Your task to perform on an android device: search for starred emails in the gmail app Image 0: 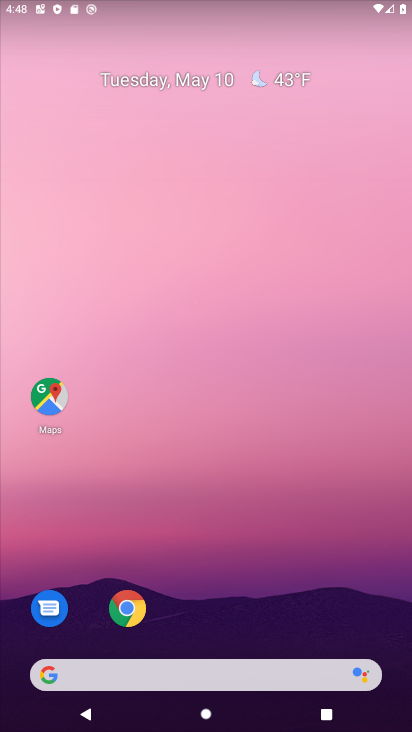
Step 0: drag from (203, 568) to (289, 39)
Your task to perform on an android device: search for starred emails in the gmail app Image 1: 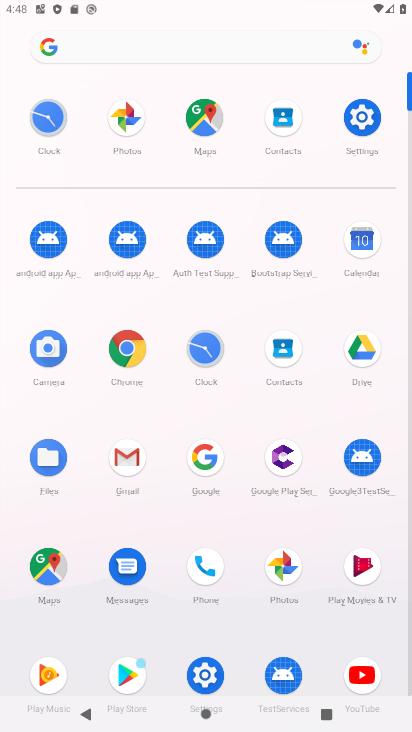
Step 1: click (134, 456)
Your task to perform on an android device: search for starred emails in the gmail app Image 2: 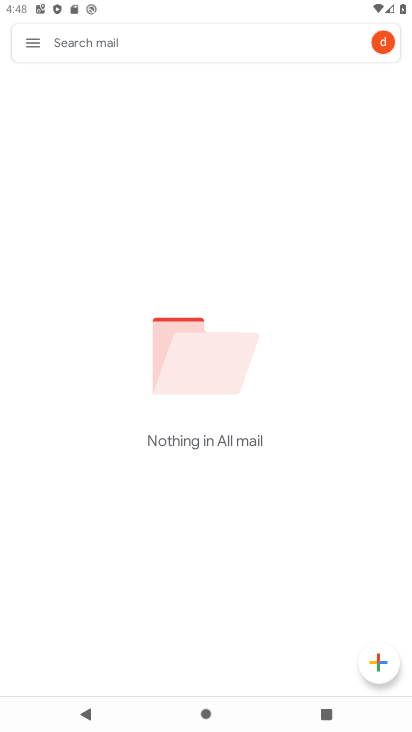
Step 2: click (42, 33)
Your task to perform on an android device: search for starred emails in the gmail app Image 3: 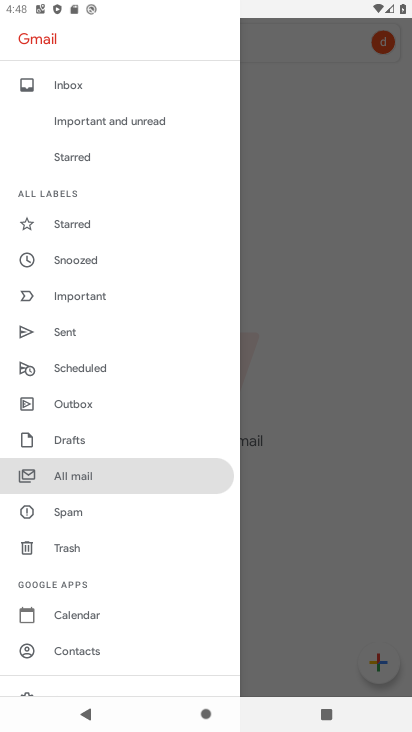
Step 3: click (88, 204)
Your task to perform on an android device: search for starred emails in the gmail app Image 4: 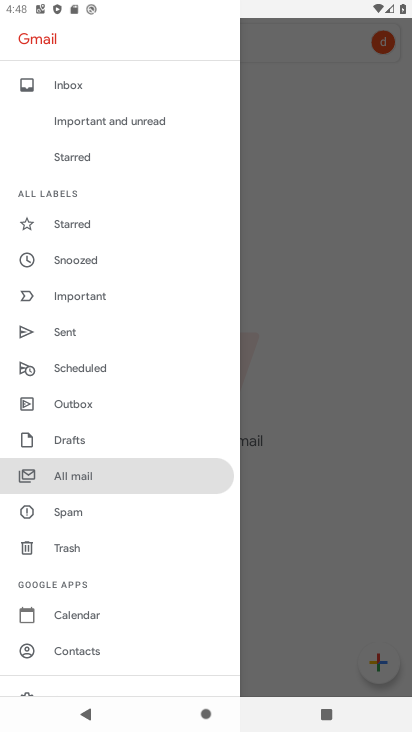
Step 4: click (84, 218)
Your task to perform on an android device: search for starred emails in the gmail app Image 5: 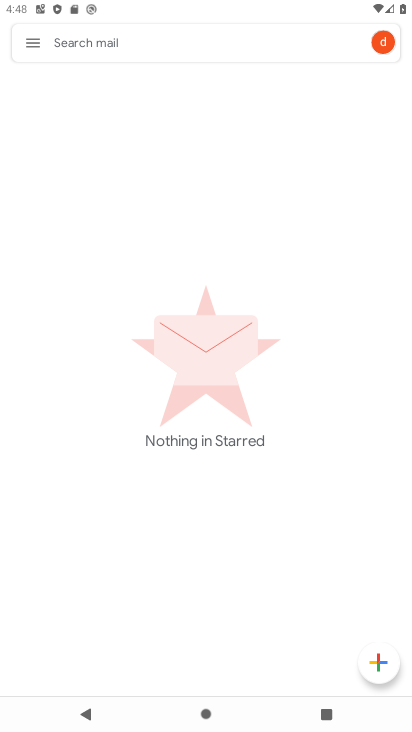
Step 5: task complete